Your task to perform on an android device: choose inbox layout in the gmail app Image 0: 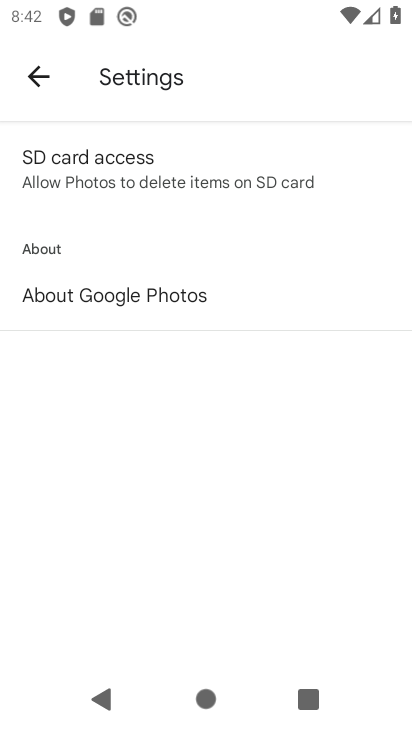
Step 0: press home button
Your task to perform on an android device: choose inbox layout in the gmail app Image 1: 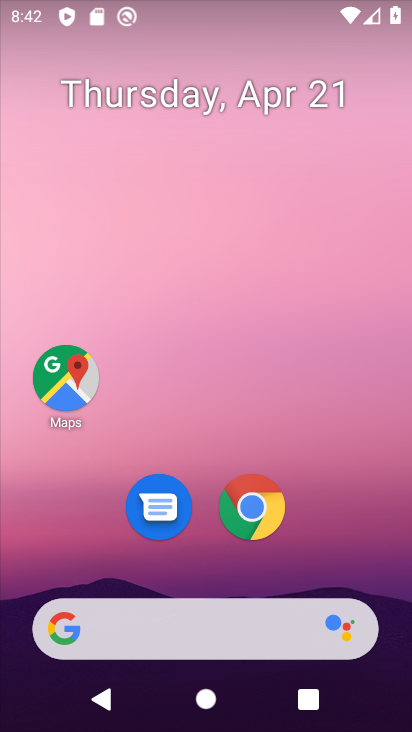
Step 1: drag from (341, 532) to (346, 85)
Your task to perform on an android device: choose inbox layout in the gmail app Image 2: 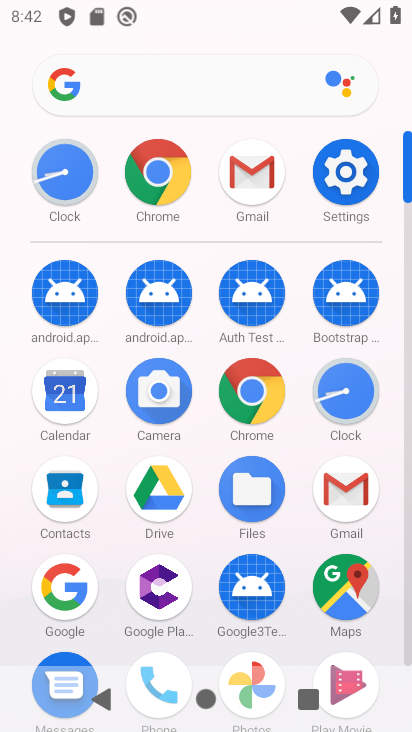
Step 2: click (360, 491)
Your task to perform on an android device: choose inbox layout in the gmail app Image 3: 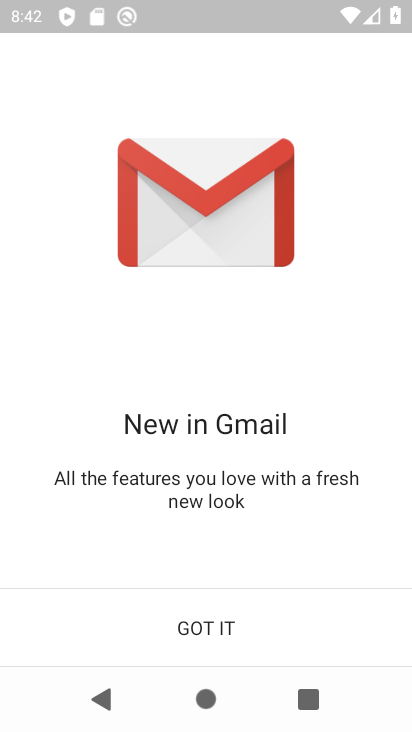
Step 3: click (239, 615)
Your task to perform on an android device: choose inbox layout in the gmail app Image 4: 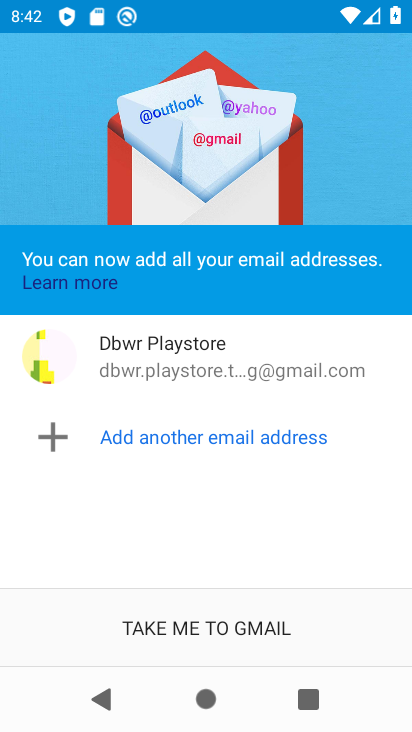
Step 4: click (251, 619)
Your task to perform on an android device: choose inbox layout in the gmail app Image 5: 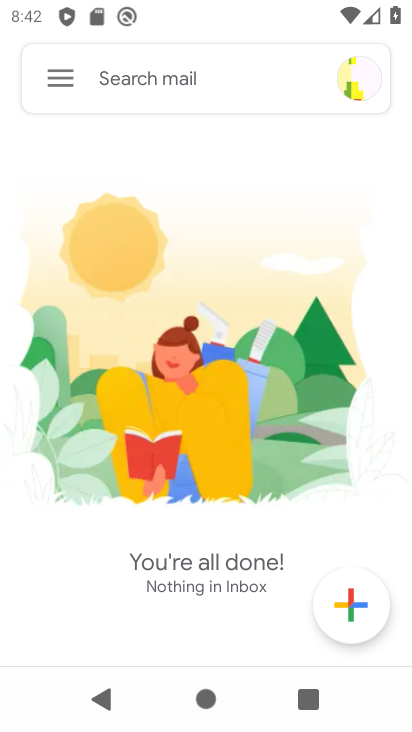
Step 5: click (67, 74)
Your task to perform on an android device: choose inbox layout in the gmail app Image 6: 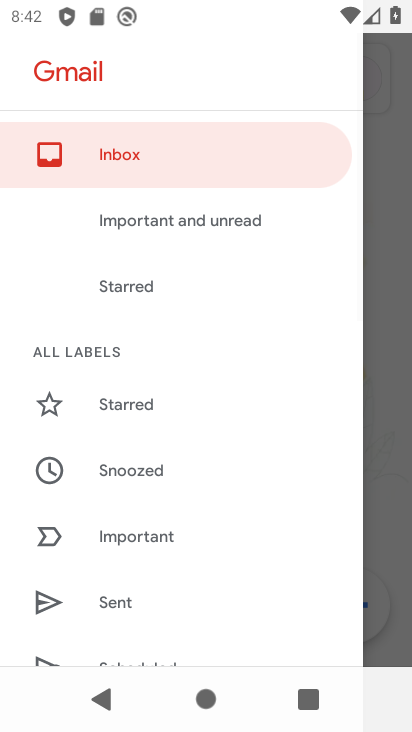
Step 6: drag from (167, 606) to (228, 292)
Your task to perform on an android device: choose inbox layout in the gmail app Image 7: 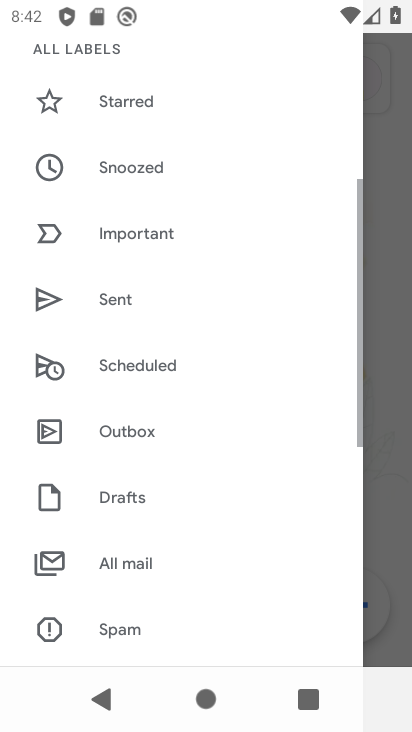
Step 7: drag from (218, 585) to (251, 311)
Your task to perform on an android device: choose inbox layout in the gmail app Image 8: 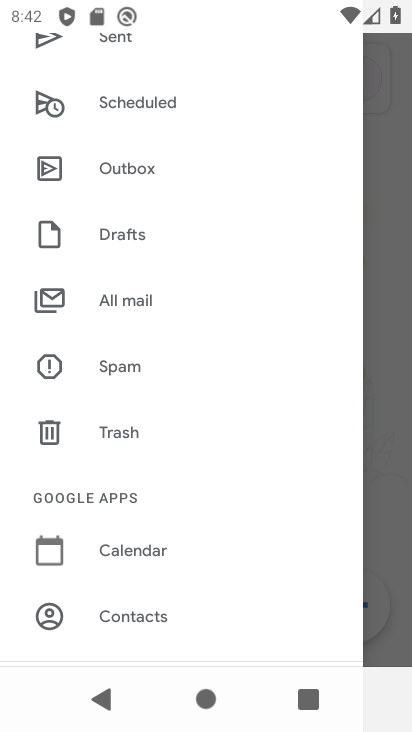
Step 8: drag from (211, 551) to (252, 253)
Your task to perform on an android device: choose inbox layout in the gmail app Image 9: 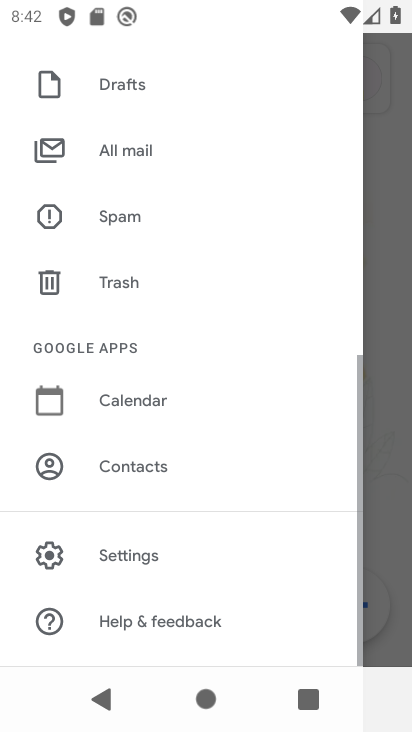
Step 9: click (179, 559)
Your task to perform on an android device: choose inbox layout in the gmail app Image 10: 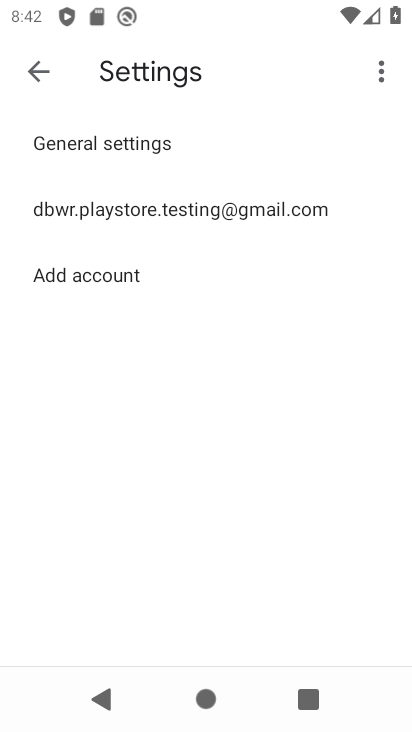
Step 10: click (256, 213)
Your task to perform on an android device: choose inbox layout in the gmail app Image 11: 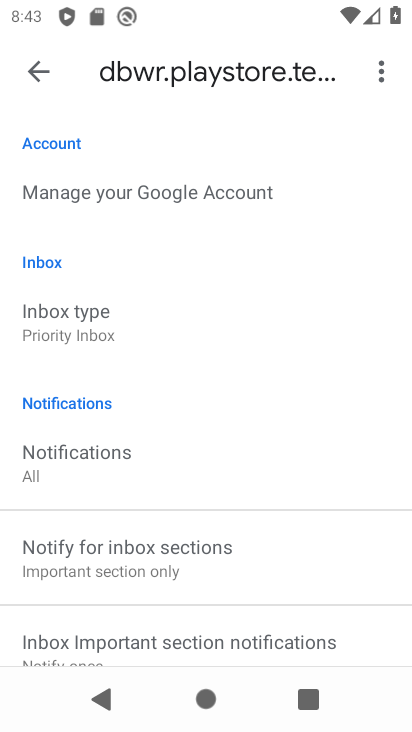
Step 11: click (124, 326)
Your task to perform on an android device: choose inbox layout in the gmail app Image 12: 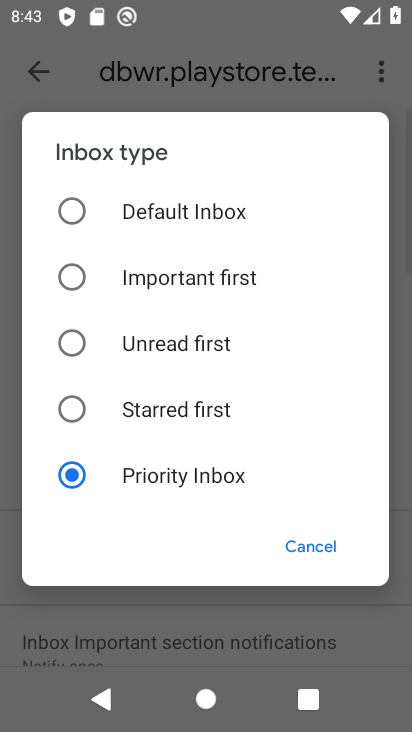
Step 12: click (142, 272)
Your task to perform on an android device: choose inbox layout in the gmail app Image 13: 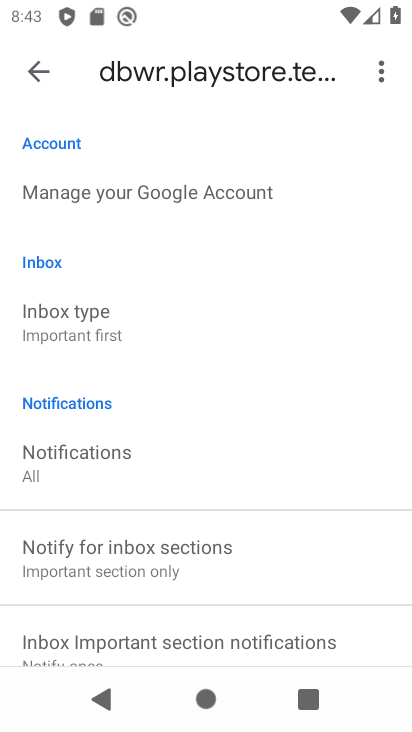
Step 13: task complete